Your task to perform on an android device: Open Youtube and go to the subscriptions tab Image 0: 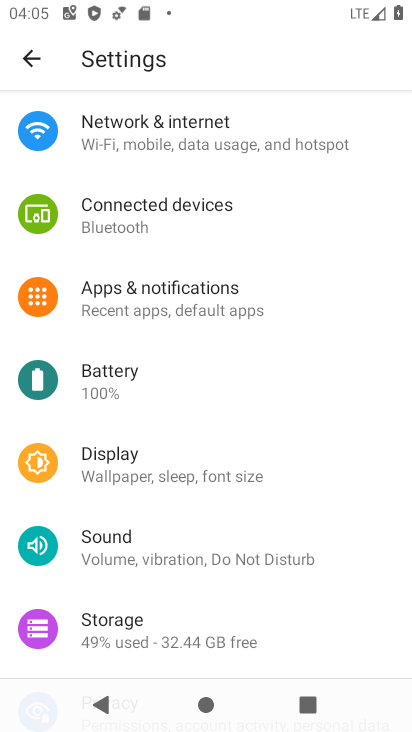
Step 0: press home button
Your task to perform on an android device: Open Youtube and go to the subscriptions tab Image 1: 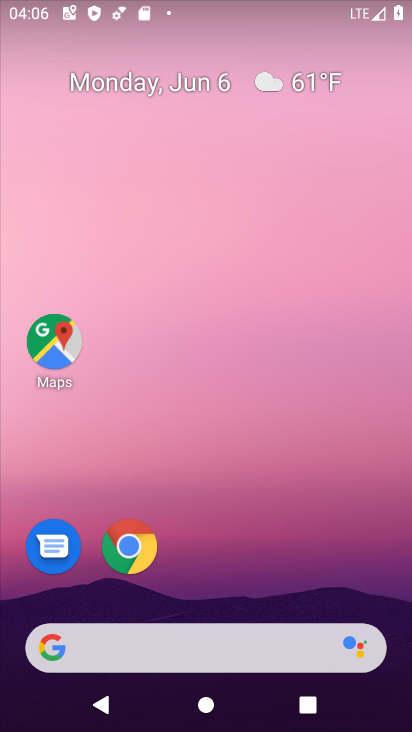
Step 1: drag from (231, 609) to (225, 127)
Your task to perform on an android device: Open Youtube and go to the subscriptions tab Image 2: 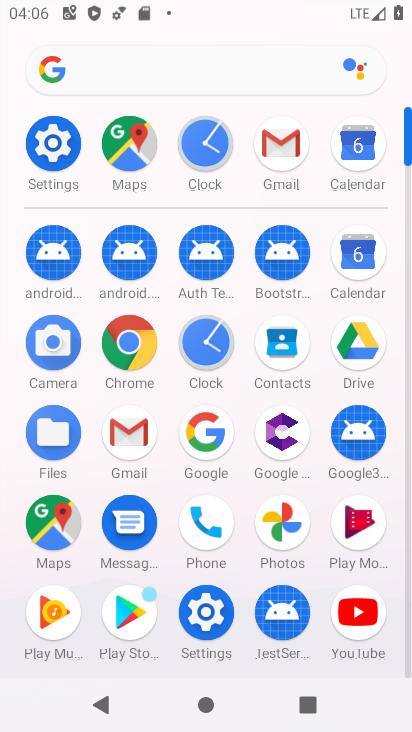
Step 2: click (357, 613)
Your task to perform on an android device: Open Youtube and go to the subscriptions tab Image 3: 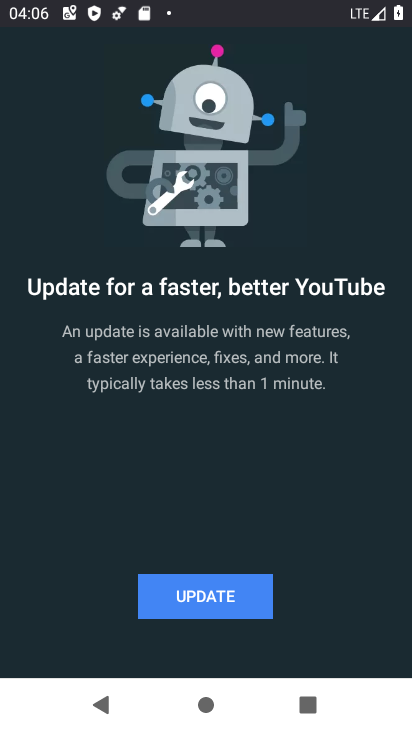
Step 3: click (190, 608)
Your task to perform on an android device: Open Youtube and go to the subscriptions tab Image 4: 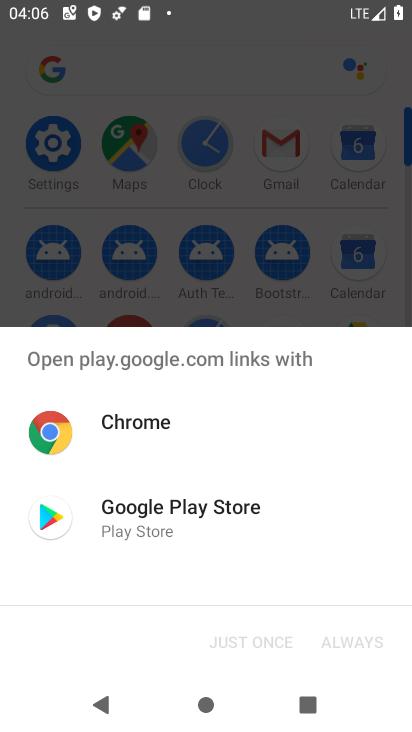
Step 4: click (103, 506)
Your task to perform on an android device: Open Youtube and go to the subscriptions tab Image 5: 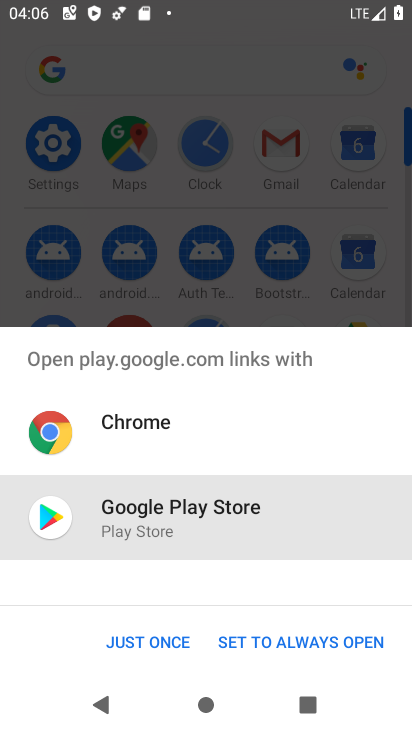
Step 5: click (134, 642)
Your task to perform on an android device: Open Youtube and go to the subscriptions tab Image 6: 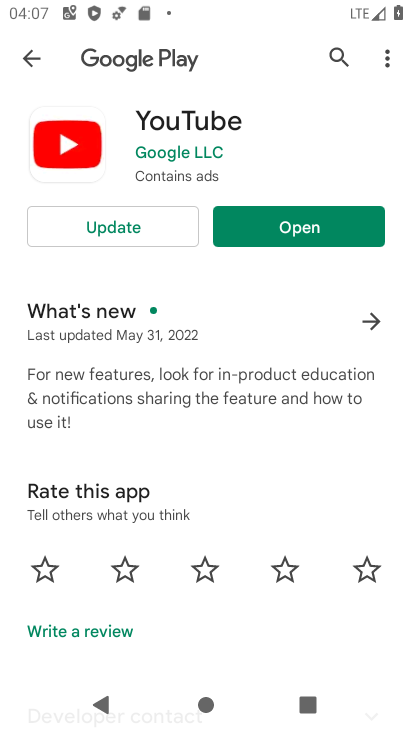
Step 6: click (119, 220)
Your task to perform on an android device: Open Youtube and go to the subscriptions tab Image 7: 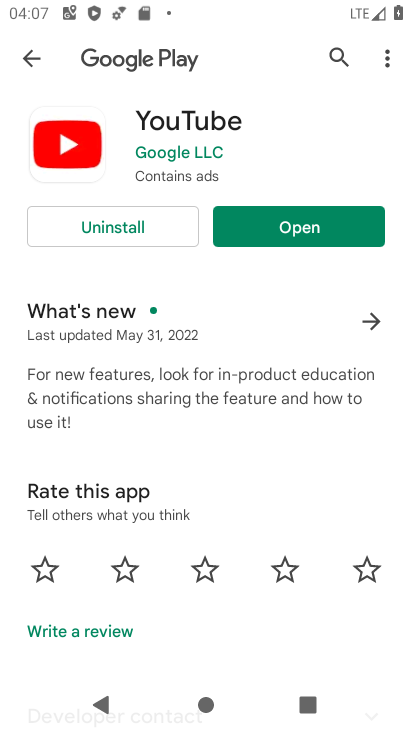
Step 7: click (267, 224)
Your task to perform on an android device: Open Youtube and go to the subscriptions tab Image 8: 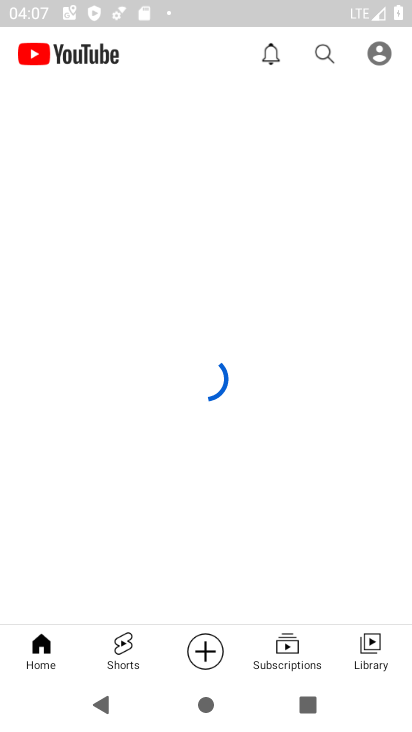
Step 8: click (261, 652)
Your task to perform on an android device: Open Youtube and go to the subscriptions tab Image 9: 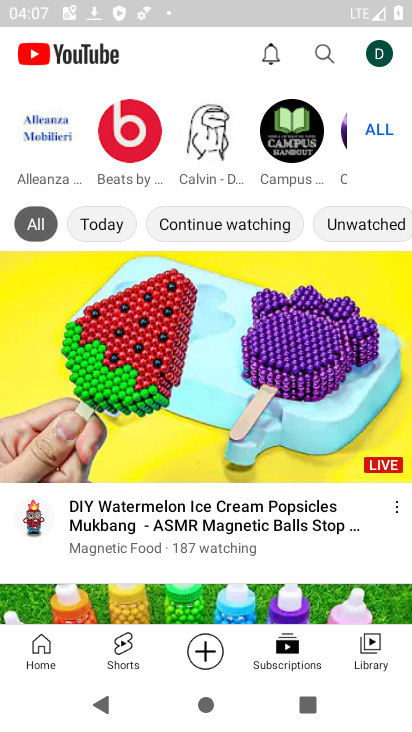
Step 9: click (293, 652)
Your task to perform on an android device: Open Youtube and go to the subscriptions tab Image 10: 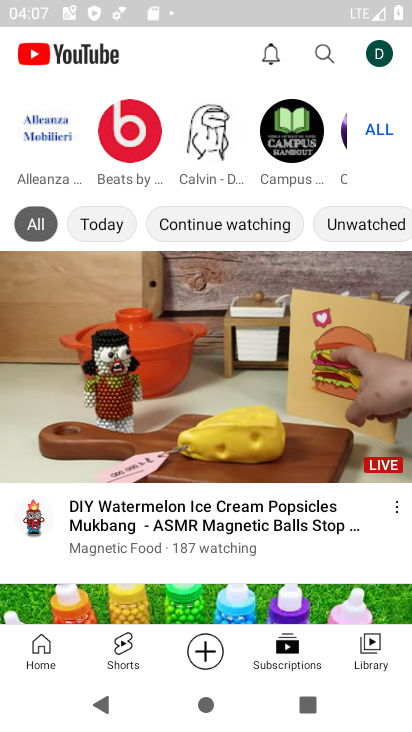
Step 10: task complete